Your task to perform on an android device: turn on javascript in the chrome app Image 0: 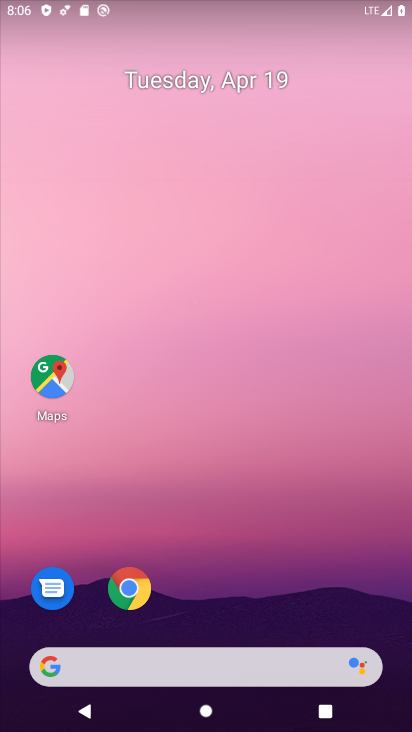
Step 0: click (128, 605)
Your task to perform on an android device: turn on javascript in the chrome app Image 1: 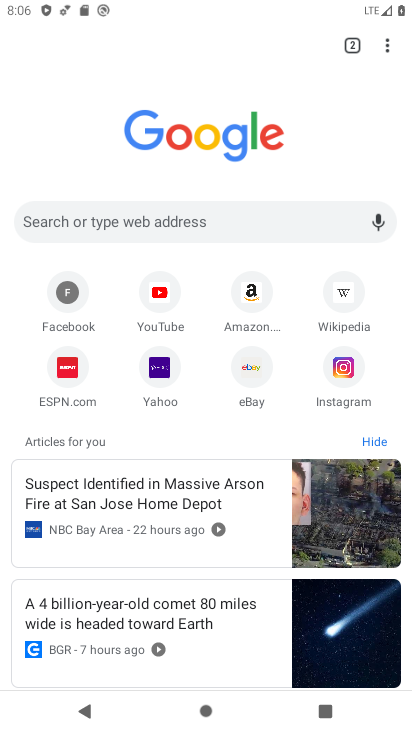
Step 1: click (386, 37)
Your task to perform on an android device: turn on javascript in the chrome app Image 2: 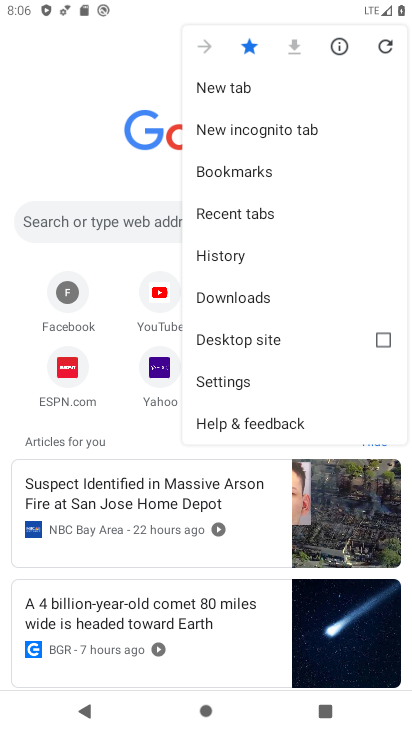
Step 2: click (257, 382)
Your task to perform on an android device: turn on javascript in the chrome app Image 3: 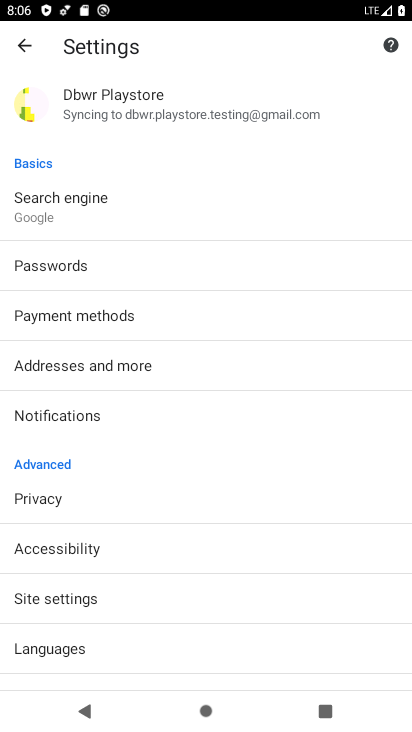
Step 3: click (165, 602)
Your task to perform on an android device: turn on javascript in the chrome app Image 4: 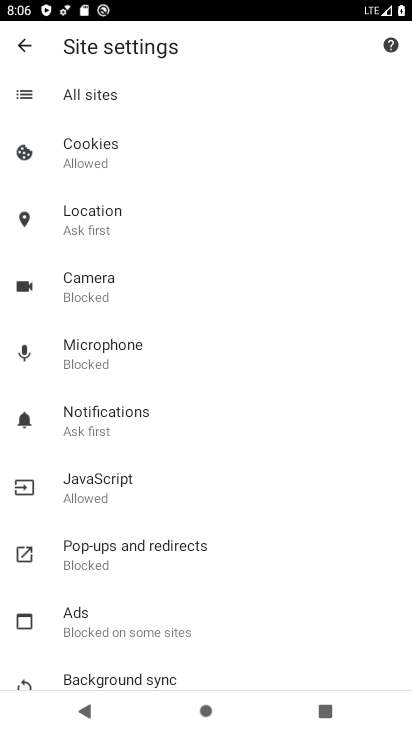
Step 4: click (180, 500)
Your task to perform on an android device: turn on javascript in the chrome app Image 5: 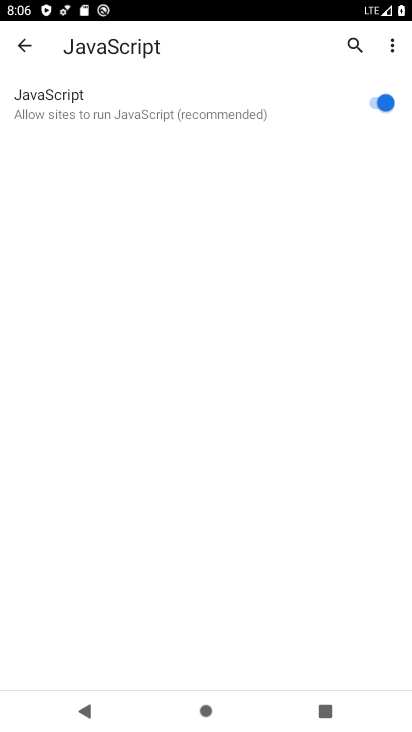
Step 5: click (383, 108)
Your task to perform on an android device: turn on javascript in the chrome app Image 6: 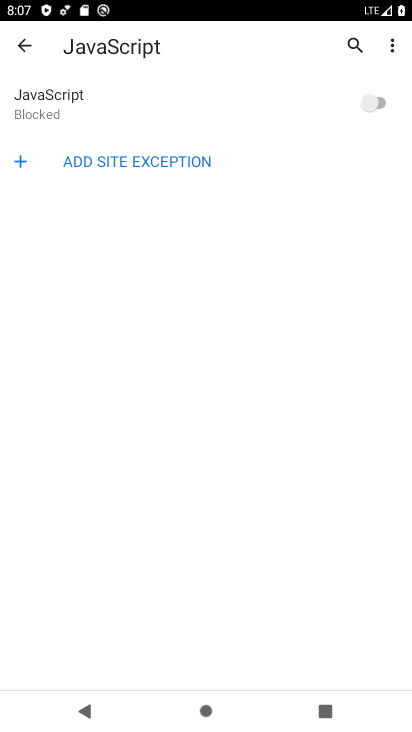
Step 6: task complete